Your task to perform on an android device: turn on location history Image 0: 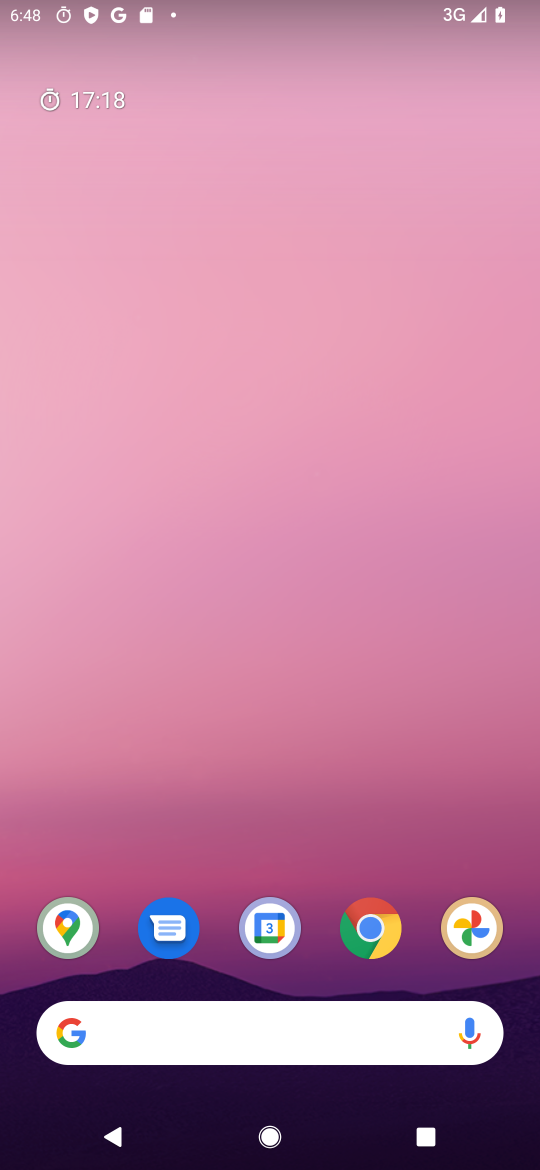
Step 0: press home button
Your task to perform on an android device: turn on location history Image 1: 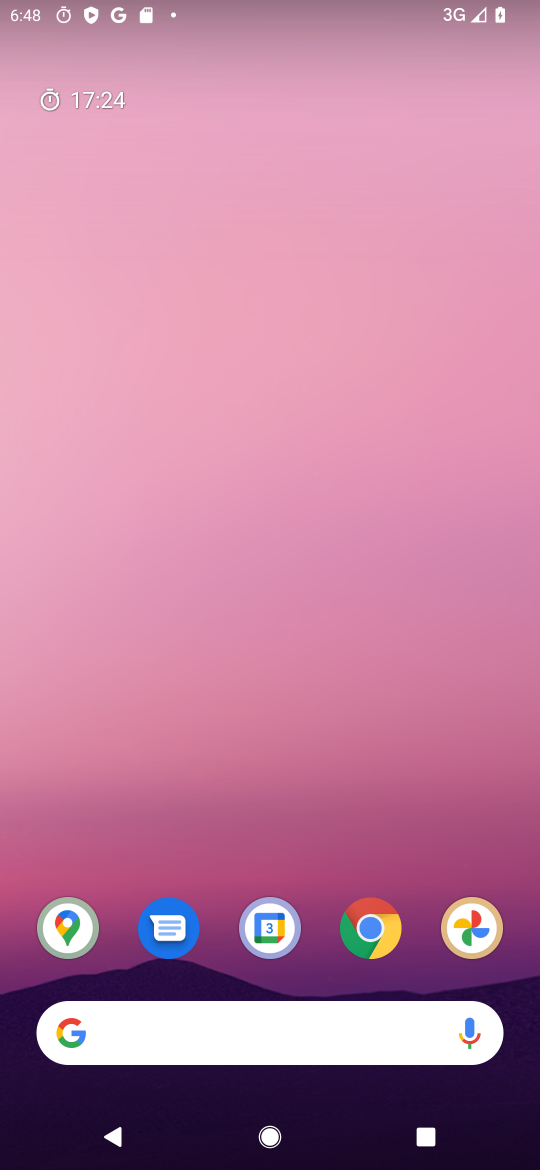
Step 1: drag from (259, 755) to (272, 242)
Your task to perform on an android device: turn on location history Image 2: 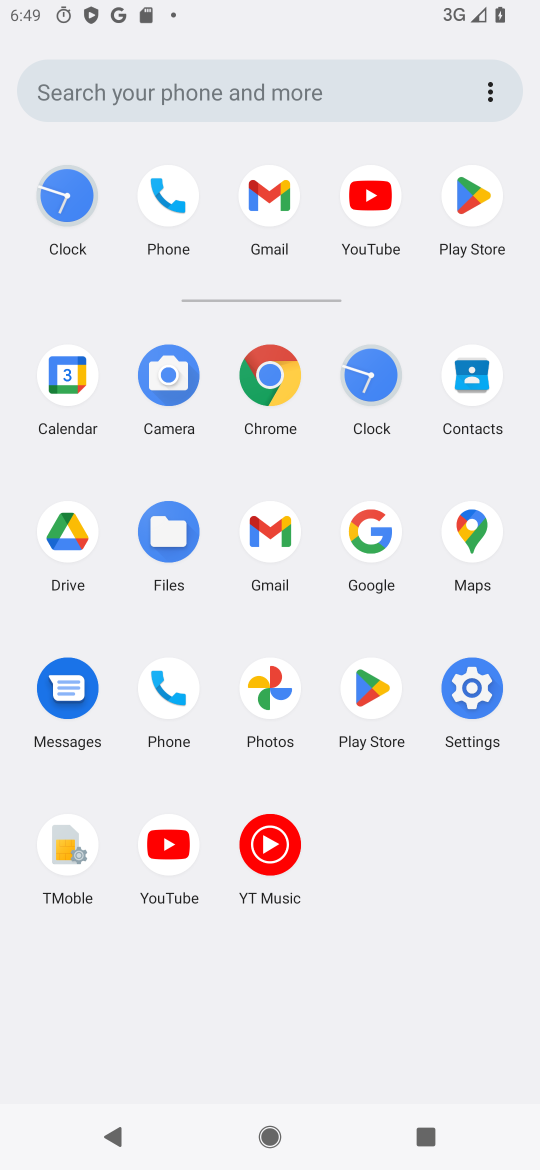
Step 2: click (468, 685)
Your task to perform on an android device: turn on location history Image 3: 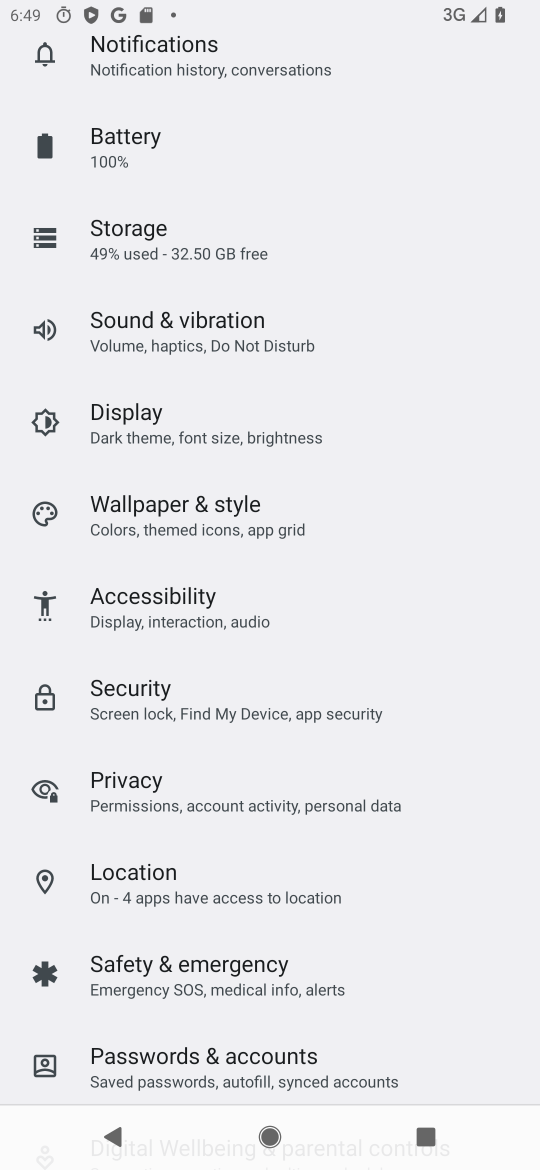
Step 3: drag from (451, 912) to (479, 469)
Your task to perform on an android device: turn on location history Image 4: 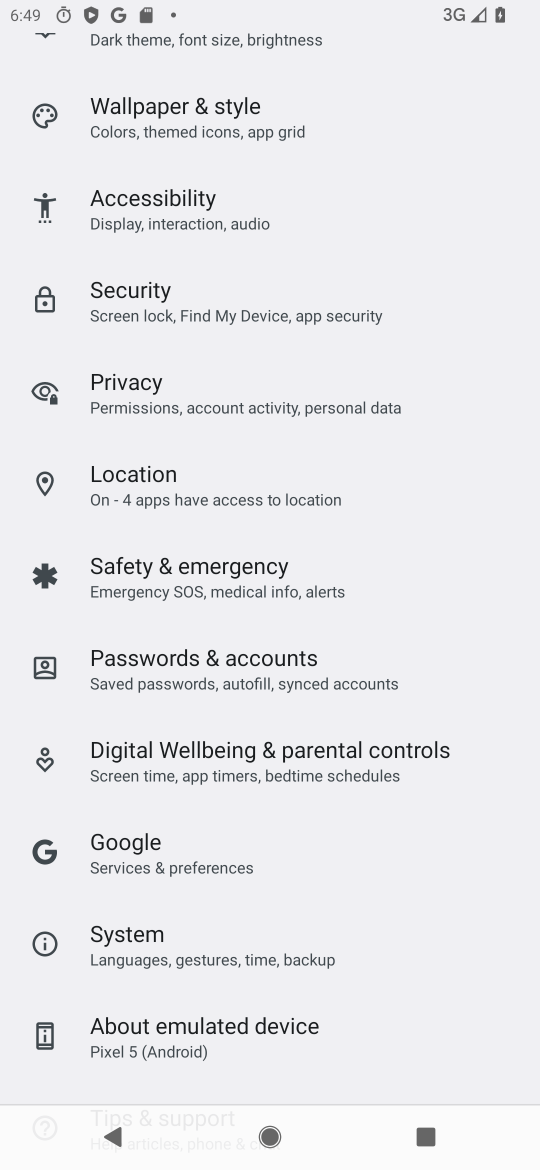
Step 4: drag from (424, 892) to (435, 588)
Your task to perform on an android device: turn on location history Image 5: 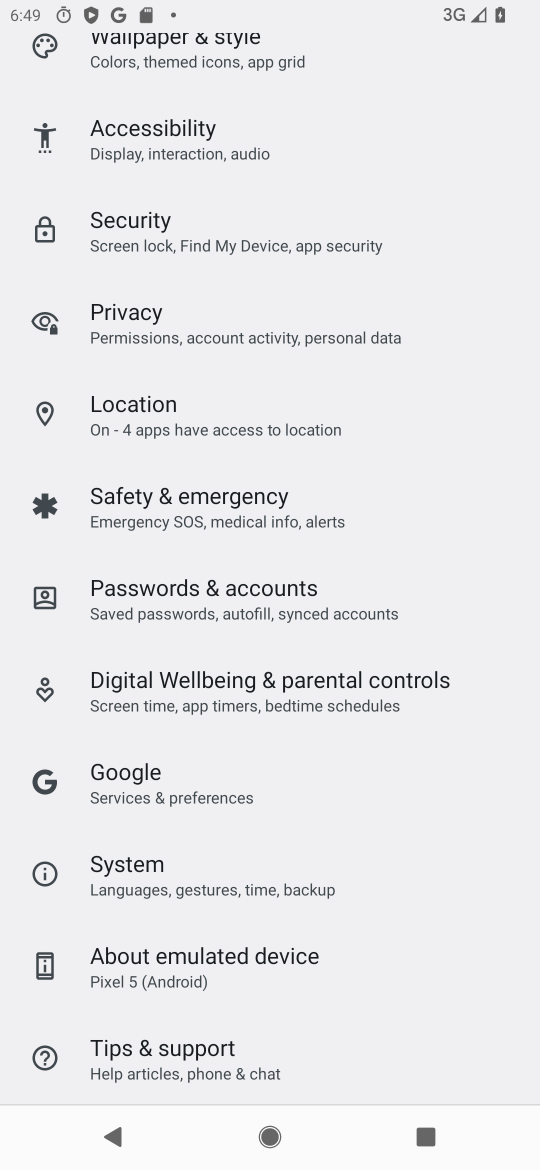
Step 5: drag from (428, 912) to (435, 601)
Your task to perform on an android device: turn on location history Image 6: 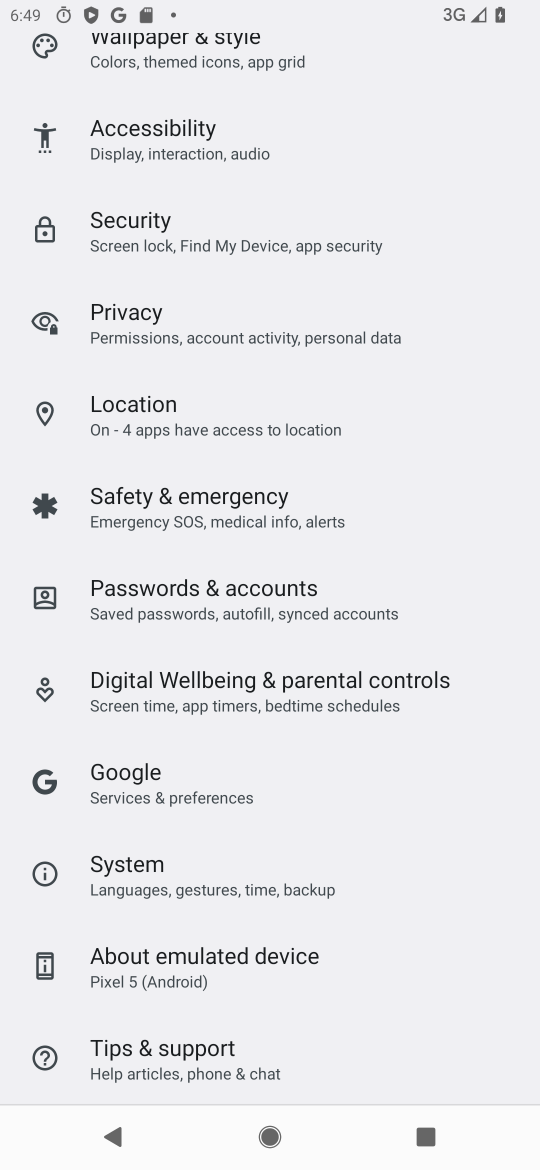
Step 6: drag from (446, 446) to (451, 787)
Your task to perform on an android device: turn on location history Image 7: 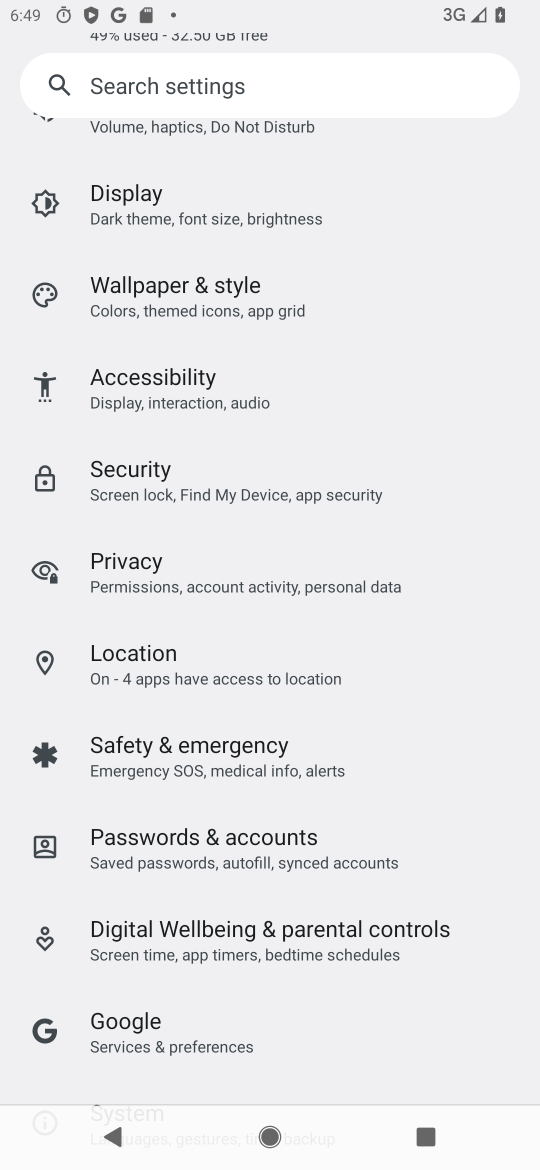
Step 7: click (328, 603)
Your task to perform on an android device: turn on location history Image 8: 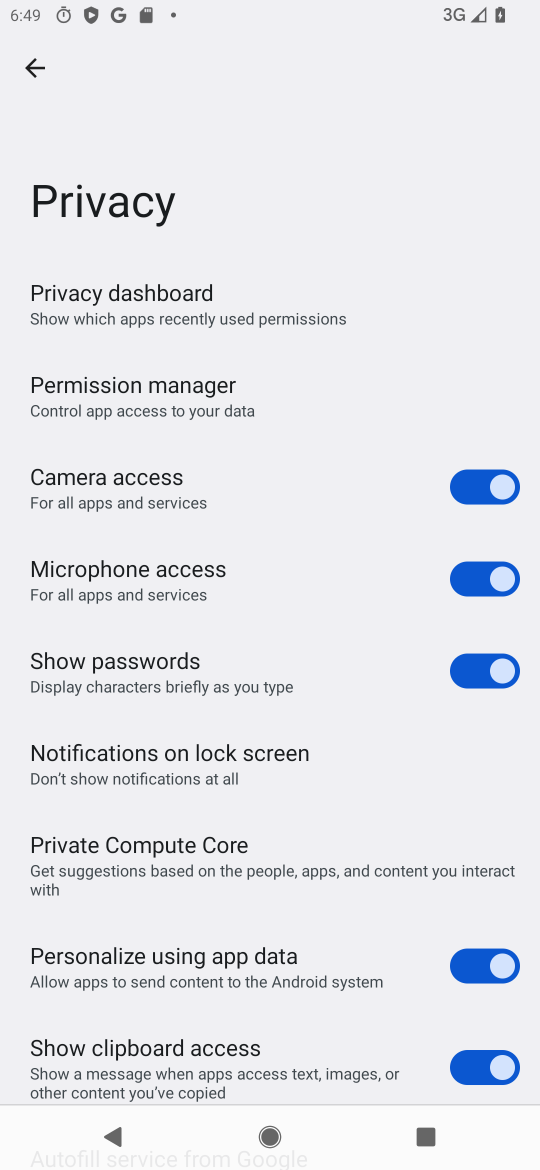
Step 8: click (24, 65)
Your task to perform on an android device: turn on location history Image 9: 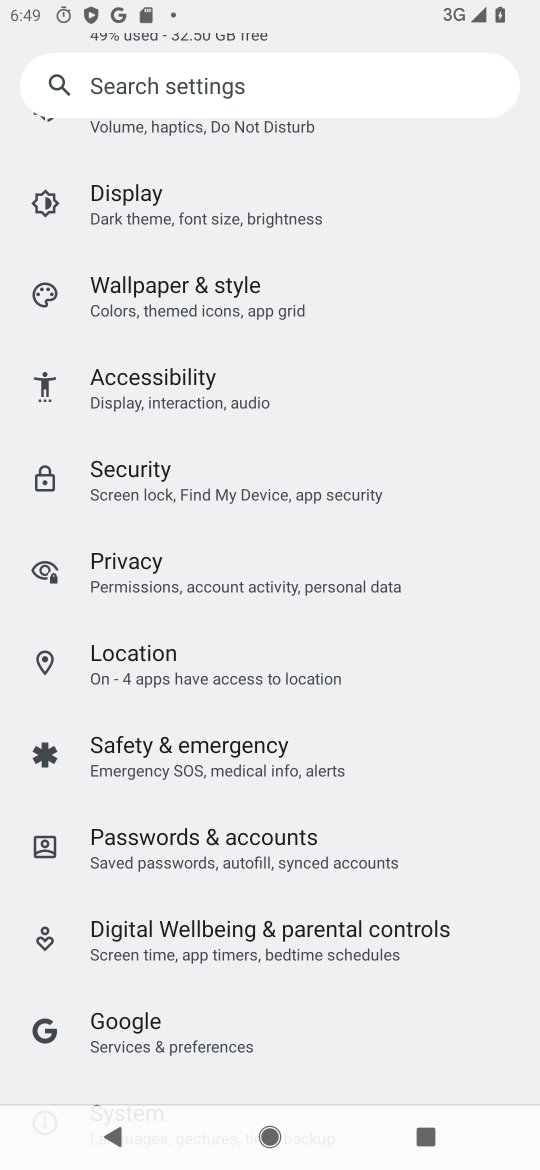
Step 9: click (177, 668)
Your task to perform on an android device: turn on location history Image 10: 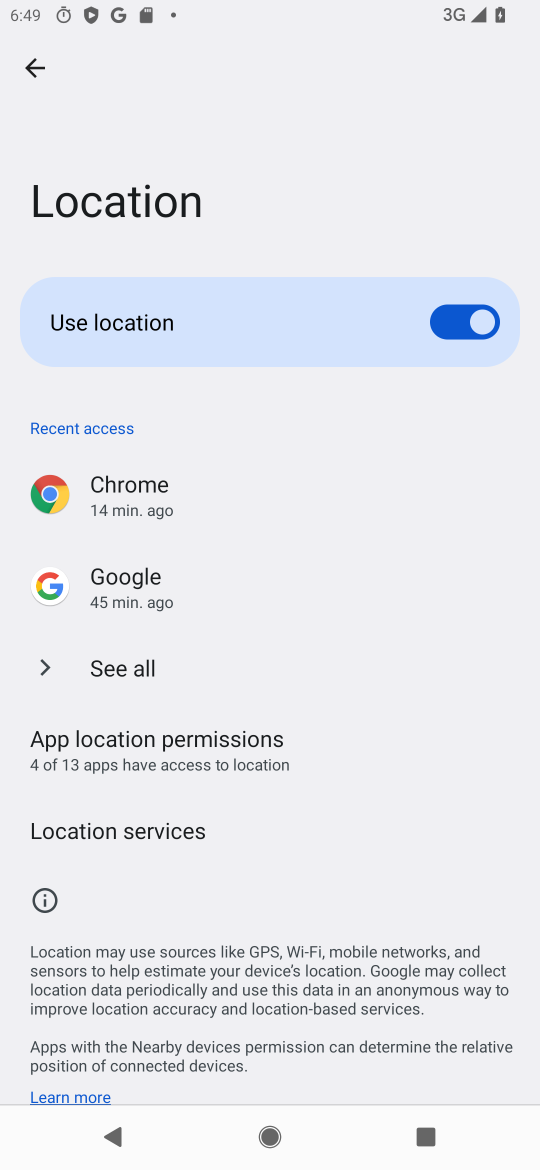
Step 10: click (154, 827)
Your task to perform on an android device: turn on location history Image 11: 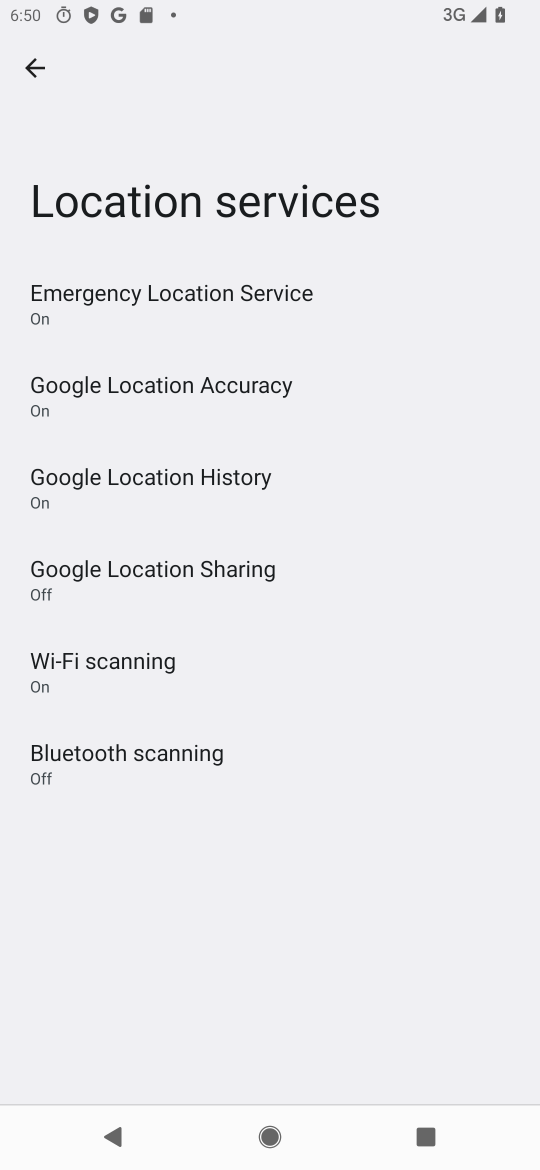
Step 11: task complete